Your task to perform on an android device: see creations saved in the google photos Image 0: 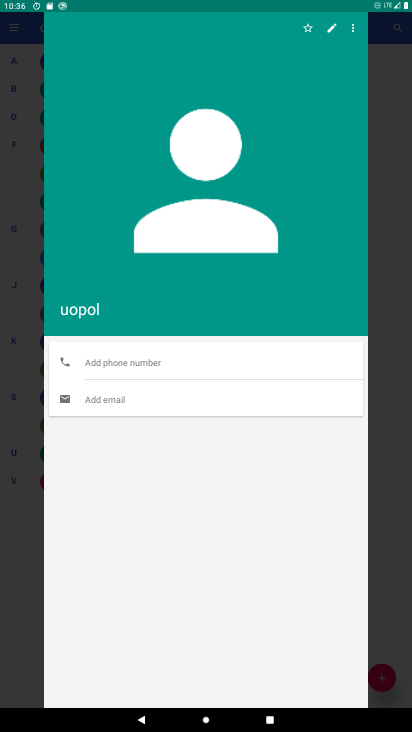
Step 0: press home button
Your task to perform on an android device: see creations saved in the google photos Image 1: 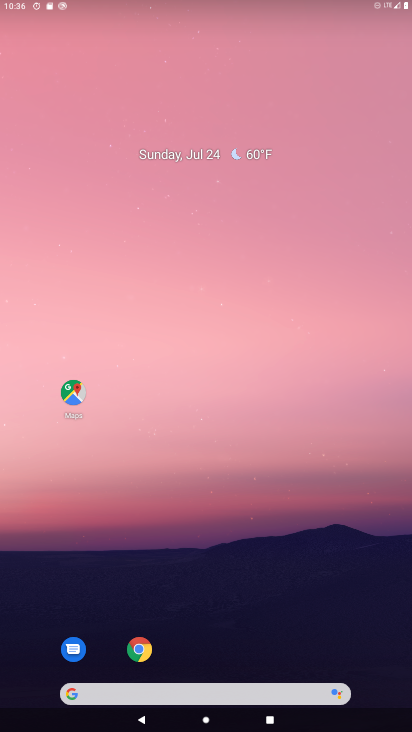
Step 1: drag from (337, 641) to (265, 128)
Your task to perform on an android device: see creations saved in the google photos Image 2: 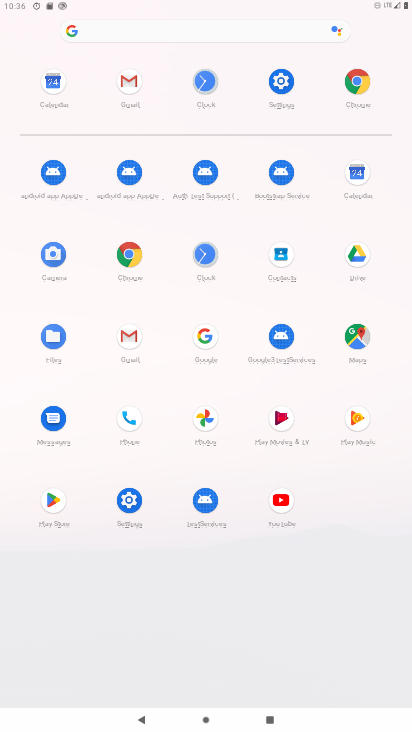
Step 2: click (200, 420)
Your task to perform on an android device: see creations saved in the google photos Image 3: 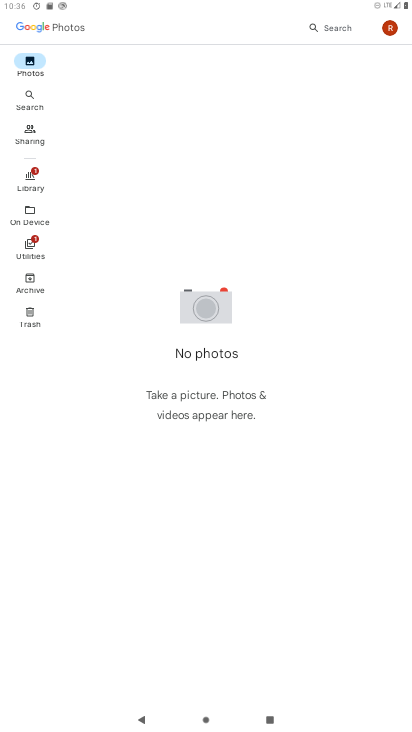
Step 3: click (27, 172)
Your task to perform on an android device: see creations saved in the google photos Image 4: 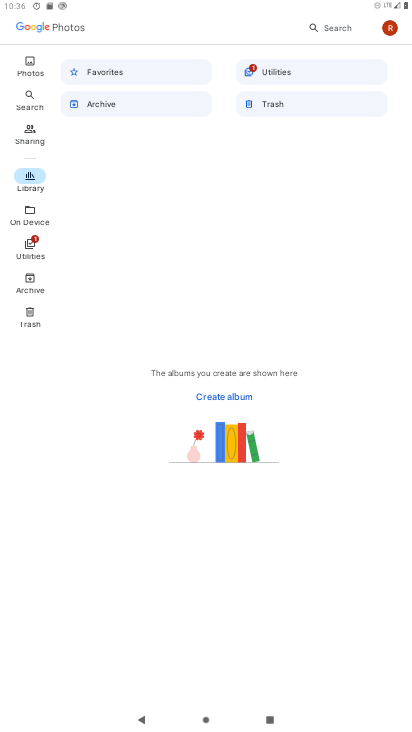
Step 4: task complete